Your task to perform on an android device: Is it going to rain today? Image 0: 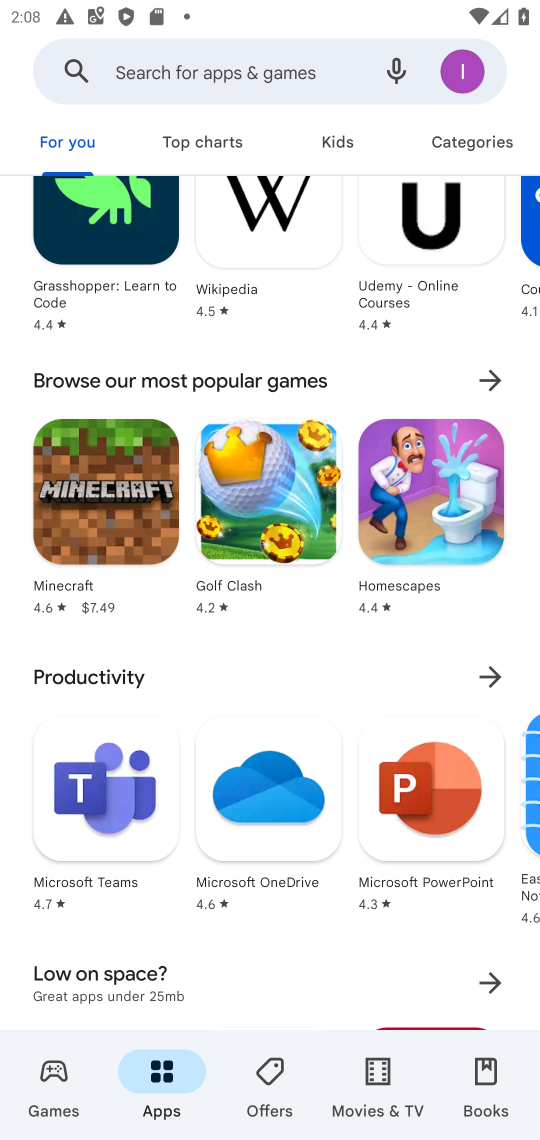
Step 0: press home button
Your task to perform on an android device: Is it going to rain today? Image 1: 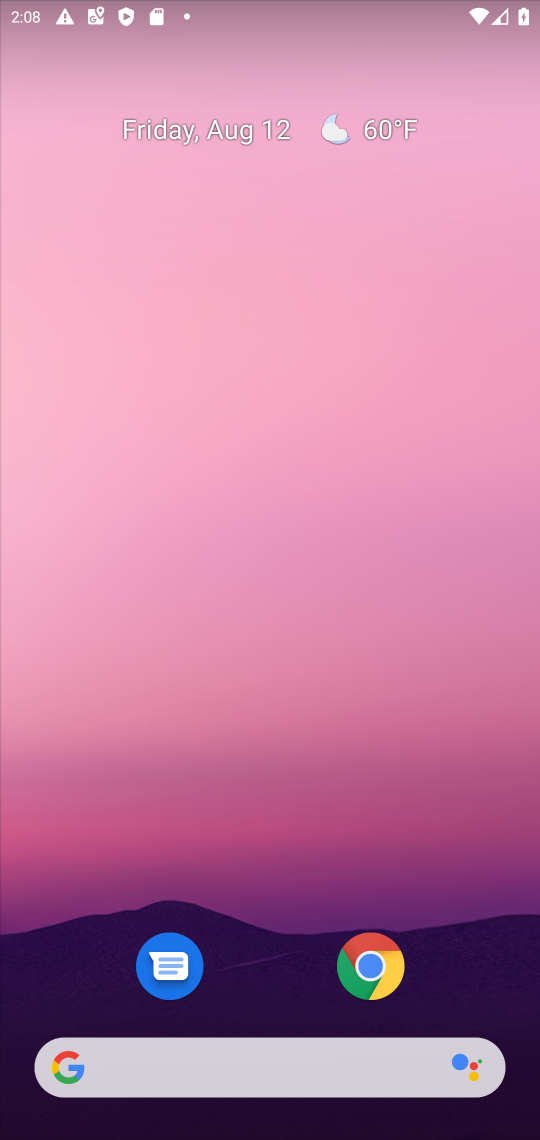
Step 1: click (388, 121)
Your task to perform on an android device: Is it going to rain today? Image 2: 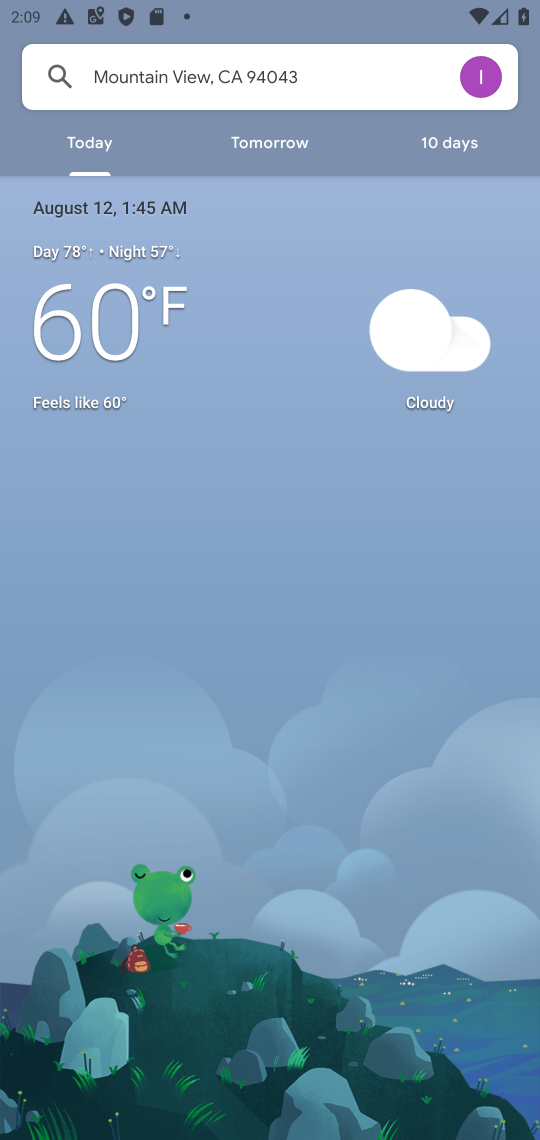
Step 2: task complete